Your task to perform on an android device: Show me popular videos on Youtube Image 0: 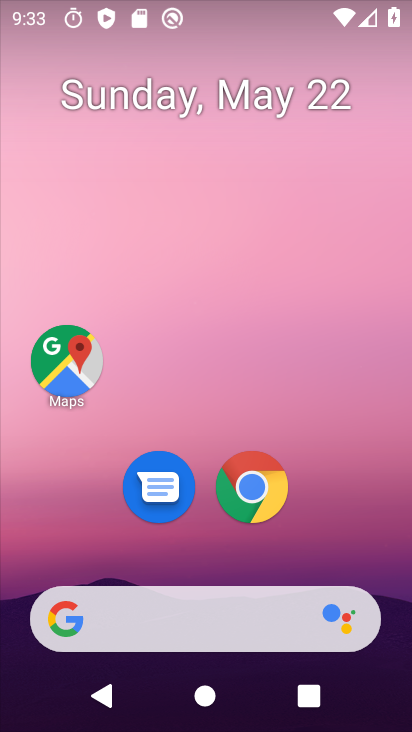
Step 0: drag from (220, 475) to (226, 72)
Your task to perform on an android device: Show me popular videos on Youtube Image 1: 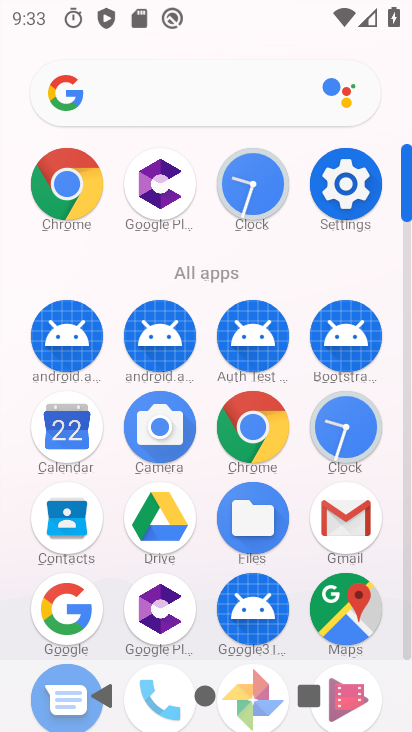
Step 1: drag from (194, 480) to (265, 14)
Your task to perform on an android device: Show me popular videos on Youtube Image 2: 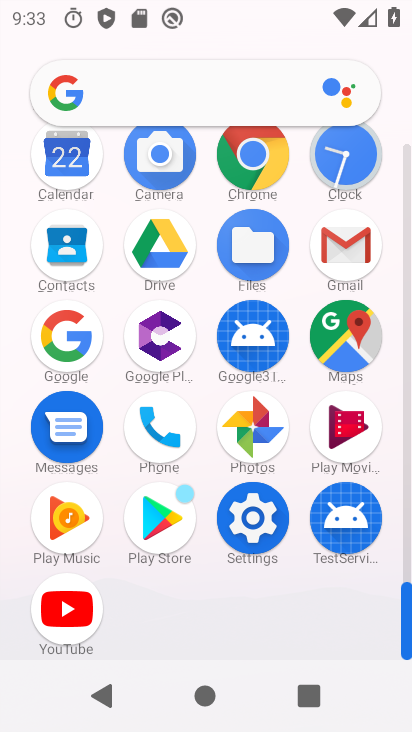
Step 2: click (79, 607)
Your task to perform on an android device: Show me popular videos on Youtube Image 3: 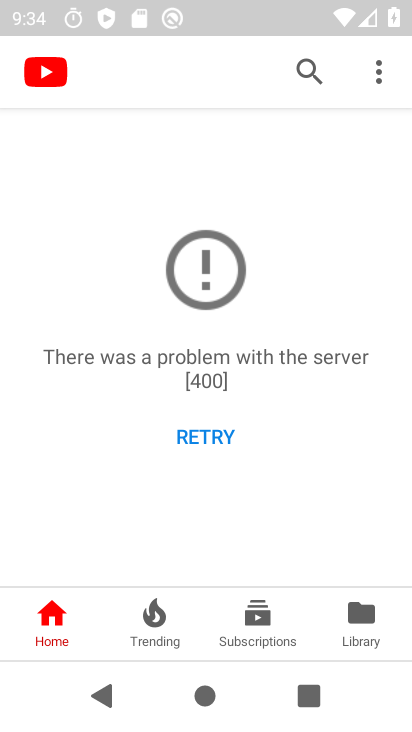
Step 3: task complete